Your task to perform on an android device: find which apps use the phone's location Image 0: 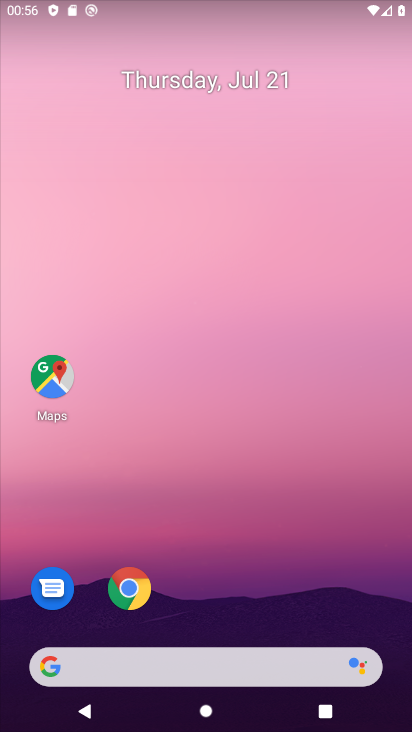
Step 0: drag from (327, 581) to (287, 69)
Your task to perform on an android device: find which apps use the phone's location Image 1: 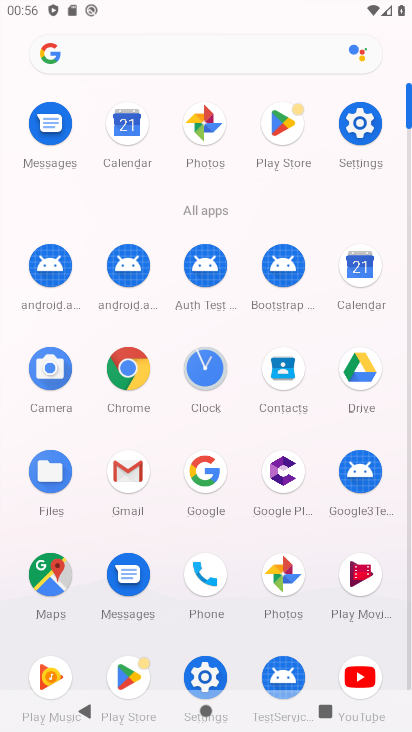
Step 1: click (213, 676)
Your task to perform on an android device: find which apps use the phone's location Image 2: 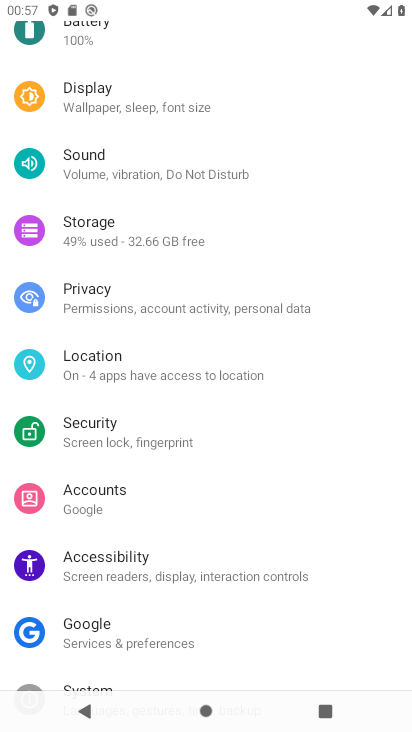
Step 2: click (149, 382)
Your task to perform on an android device: find which apps use the phone's location Image 3: 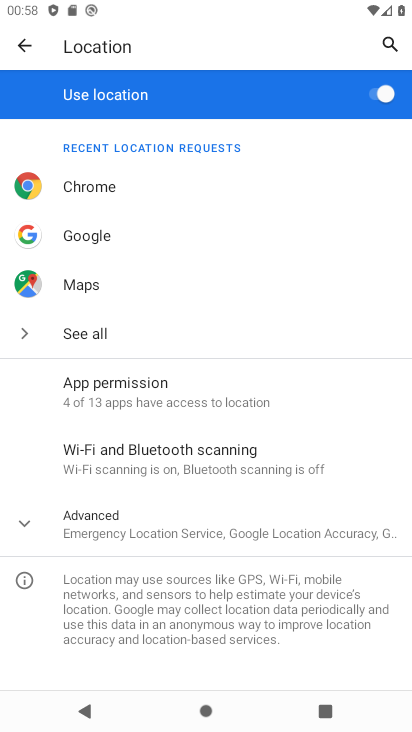
Step 3: click (132, 393)
Your task to perform on an android device: find which apps use the phone's location Image 4: 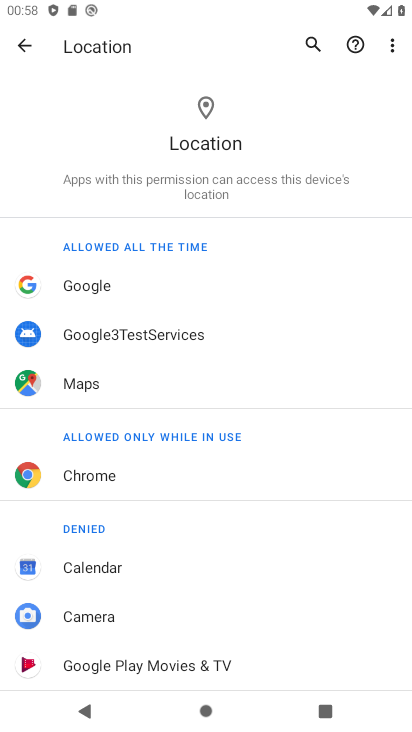
Step 4: task complete